Your task to perform on an android device: Open Google Chrome and click the shortcut for Amazon.com Image 0: 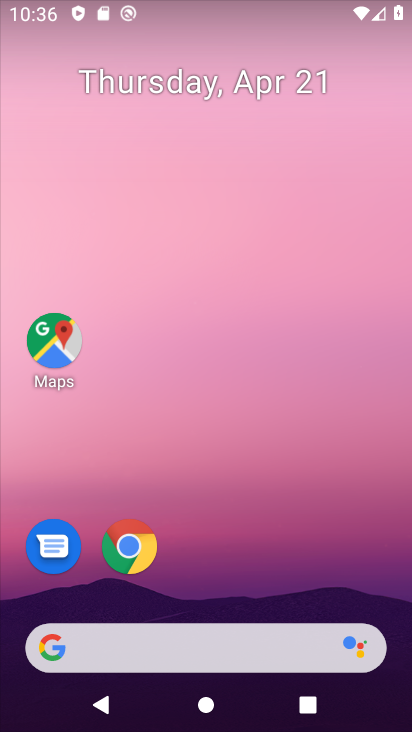
Step 0: drag from (241, 553) to (202, 0)
Your task to perform on an android device: Open Google Chrome and click the shortcut for Amazon.com Image 1: 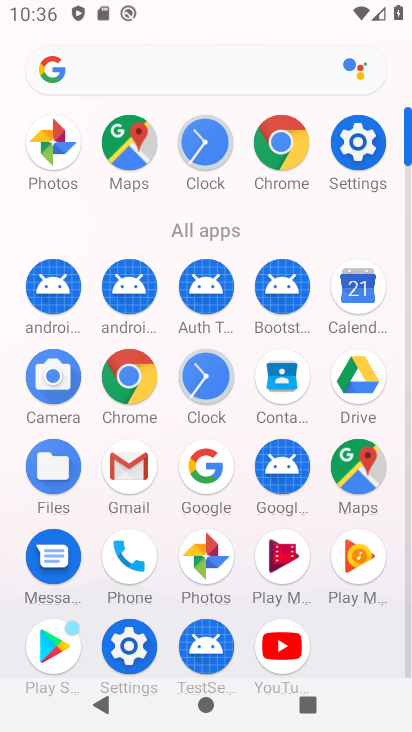
Step 1: click (120, 369)
Your task to perform on an android device: Open Google Chrome and click the shortcut for Amazon.com Image 2: 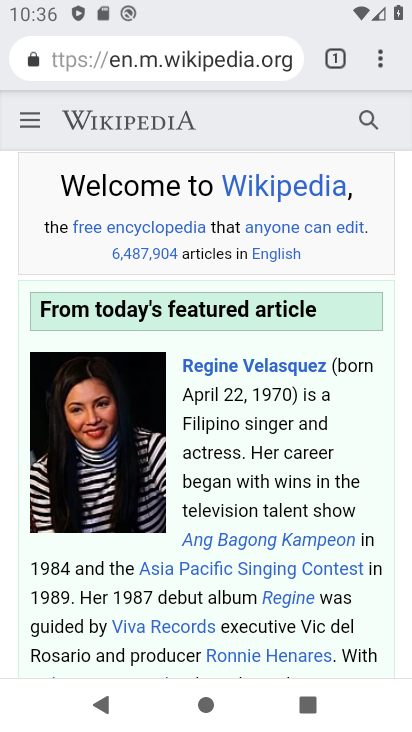
Step 2: drag from (381, 55) to (234, 124)
Your task to perform on an android device: Open Google Chrome and click the shortcut for Amazon.com Image 3: 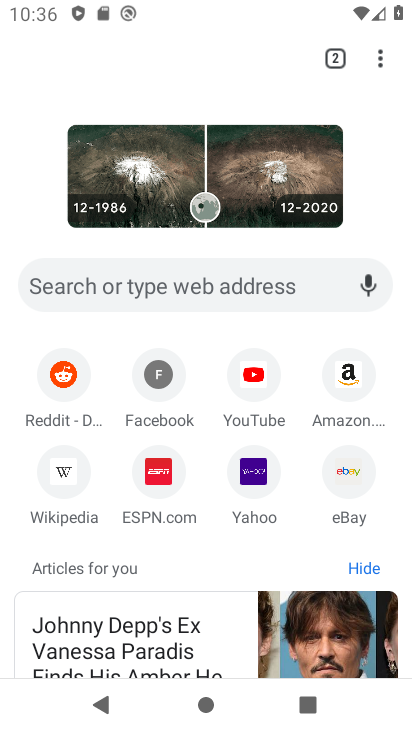
Step 3: click (346, 368)
Your task to perform on an android device: Open Google Chrome and click the shortcut for Amazon.com Image 4: 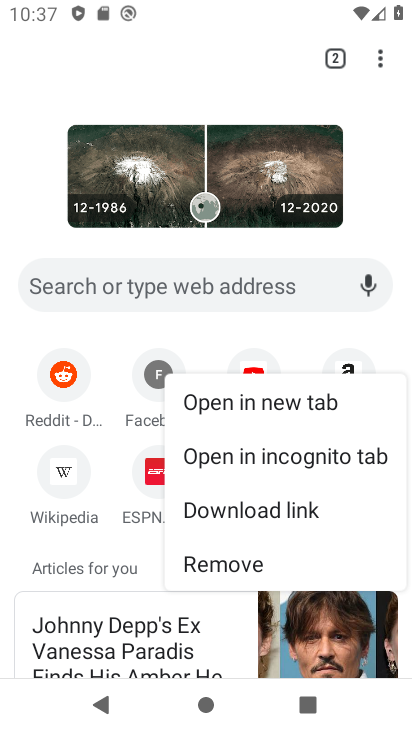
Step 4: click (346, 364)
Your task to perform on an android device: Open Google Chrome and click the shortcut for Amazon.com Image 5: 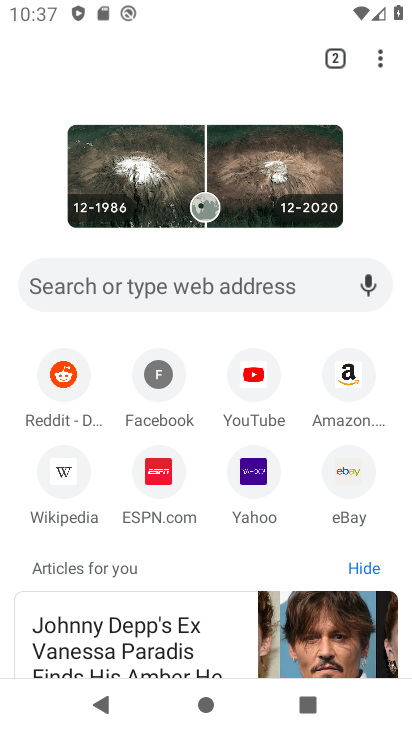
Step 5: click (337, 376)
Your task to perform on an android device: Open Google Chrome and click the shortcut for Amazon.com Image 6: 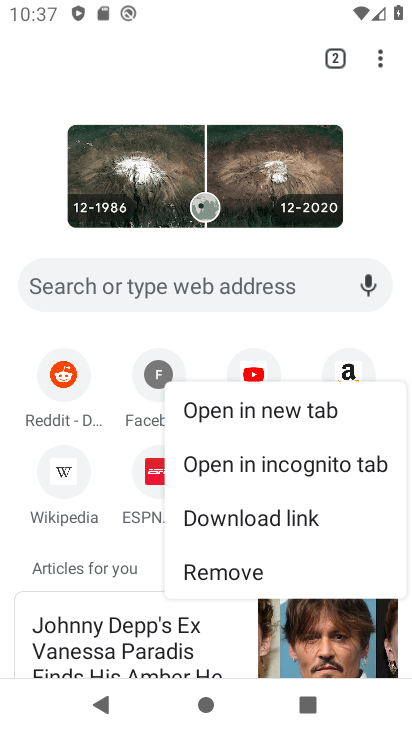
Step 6: click (340, 372)
Your task to perform on an android device: Open Google Chrome and click the shortcut for Amazon.com Image 7: 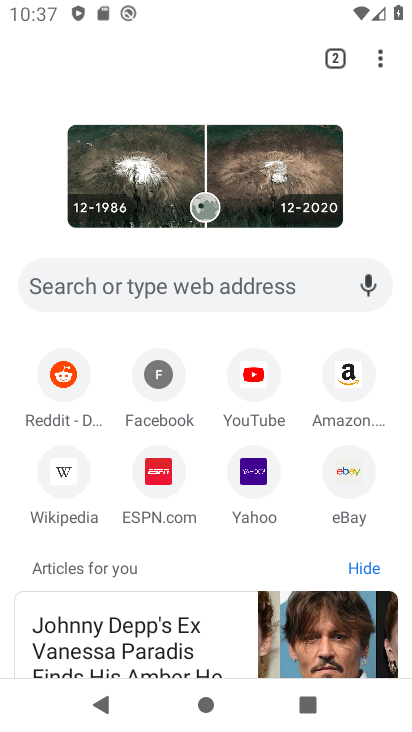
Step 7: click (361, 371)
Your task to perform on an android device: Open Google Chrome and click the shortcut for Amazon.com Image 8: 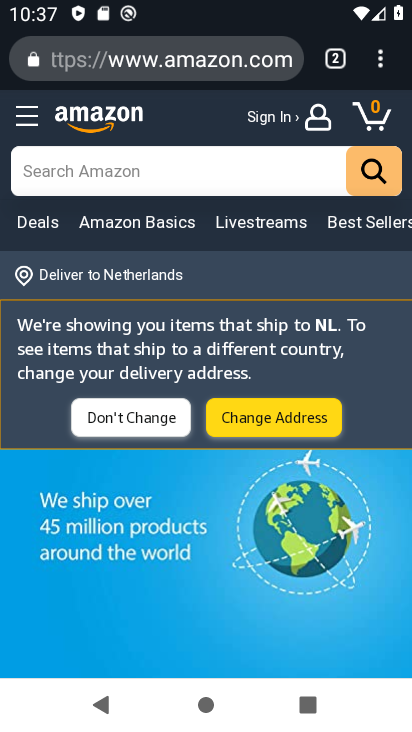
Step 8: task complete